Your task to perform on an android device: open the mobile data screen to see how much data has been used Image 0: 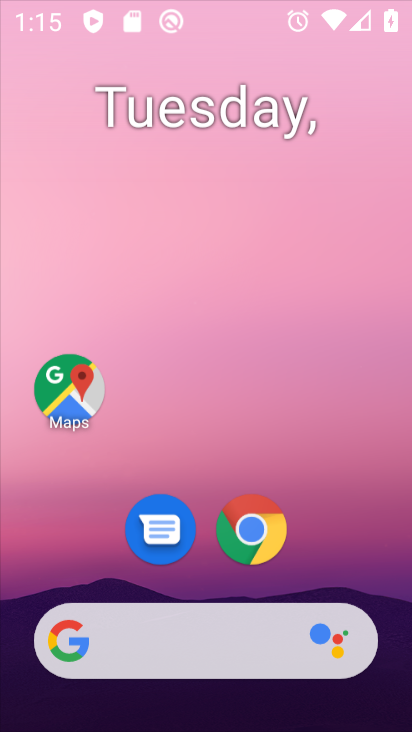
Step 0: drag from (387, 624) to (210, 60)
Your task to perform on an android device: open the mobile data screen to see how much data has been used Image 1: 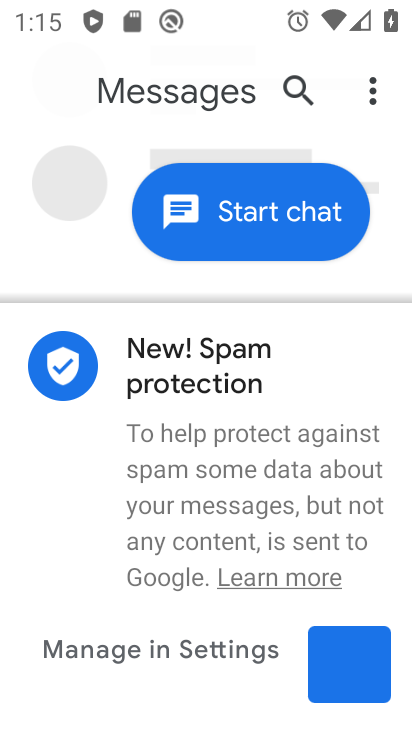
Step 1: press home button
Your task to perform on an android device: open the mobile data screen to see how much data has been used Image 2: 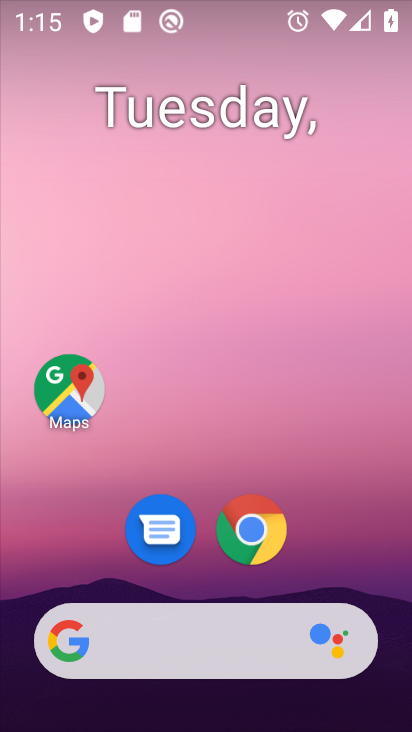
Step 2: drag from (387, 627) to (331, 151)
Your task to perform on an android device: open the mobile data screen to see how much data has been used Image 3: 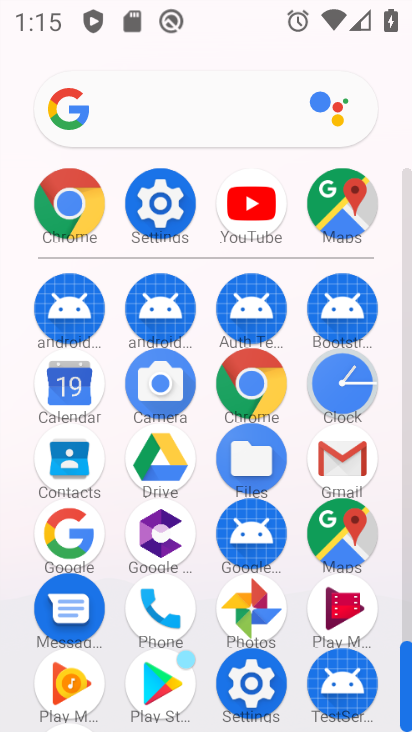
Step 3: click (153, 197)
Your task to perform on an android device: open the mobile data screen to see how much data has been used Image 4: 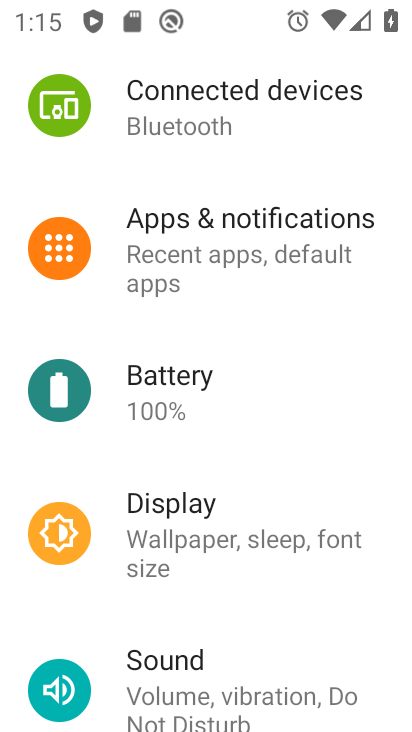
Step 4: drag from (233, 214) to (210, 439)
Your task to perform on an android device: open the mobile data screen to see how much data has been used Image 5: 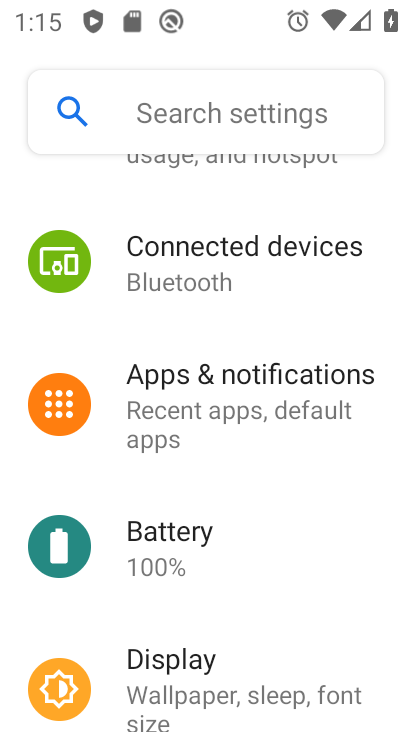
Step 5: drag from (270, 187) to (295, 407)
Your task to perform on an android device: open the mobile data screen to see how much data has been used Image 6: 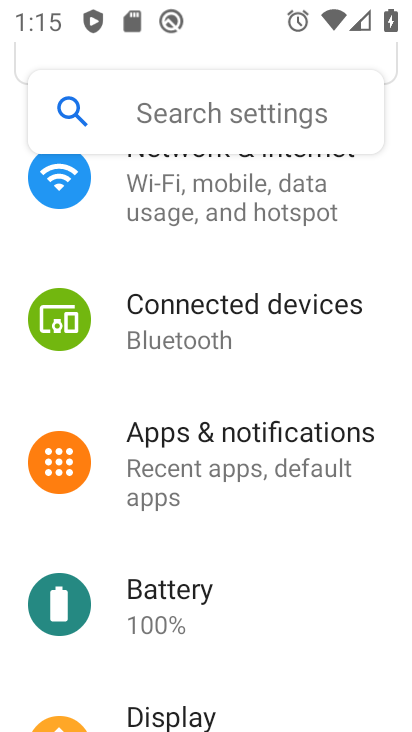
Step 6: click (246, 243)
Your task to perform on an android device: open the mobile data screen to see how much data has been used Image 7: 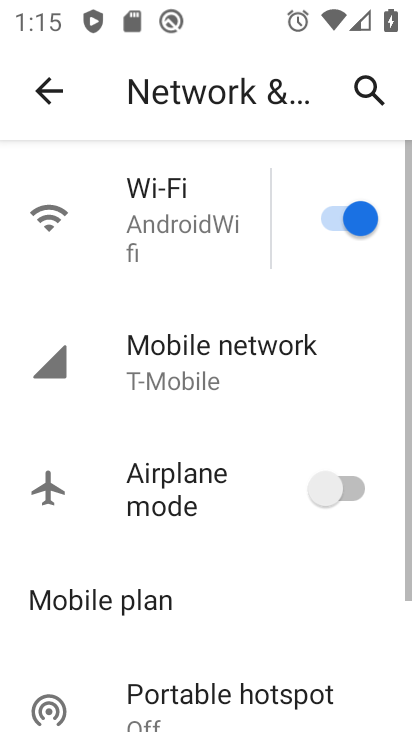
Step 7: click (228, 363)
Your task to perform on an android device: open the mobile data screen to see how much data has been used Image 8: 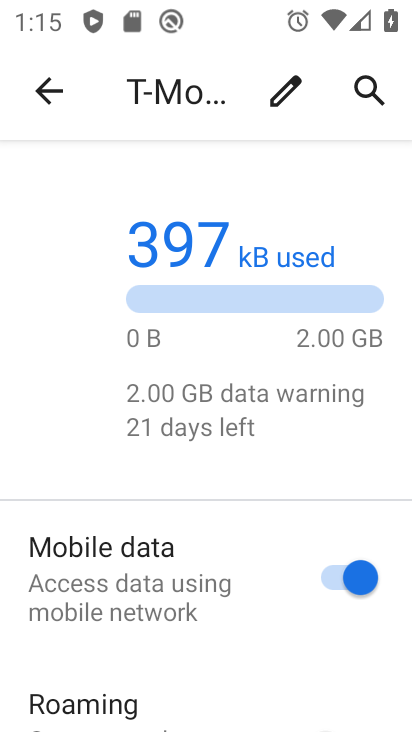
Step 8: drag from (184, 661) to (206, 447)
Your task to perform on an android device: open the mobile data screen to see how much data has been used Image 9: 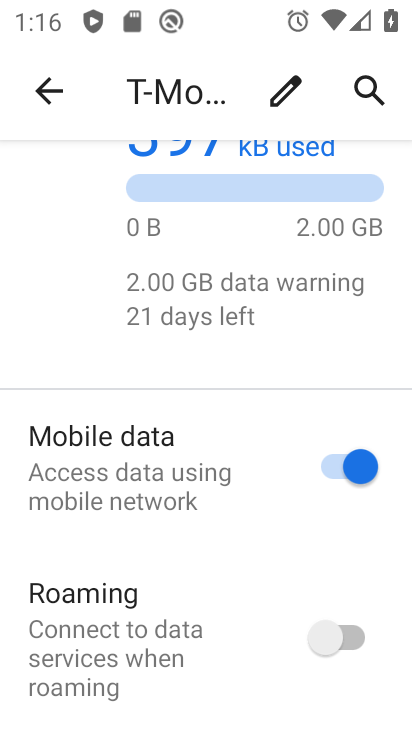
Step 9: drag from (148, 625) to (184, 299)
Your task to perform on an android device: open the mobile data screen to see how much data has been used Image 10: 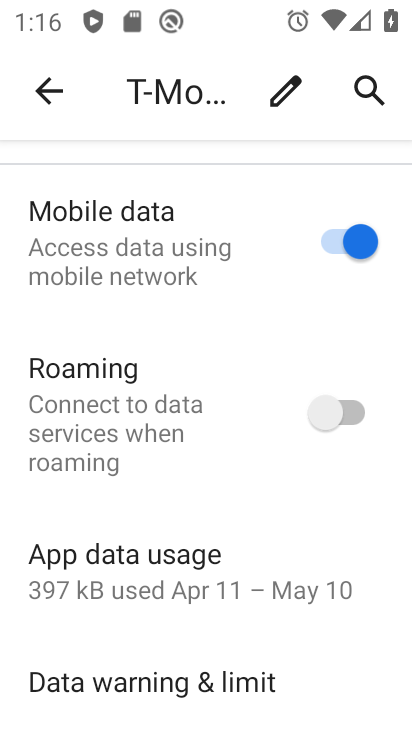
Step 10: click (160, 587)
Your task to perform on an android device: open the mobile data screen to see how much data has been used Image 11: 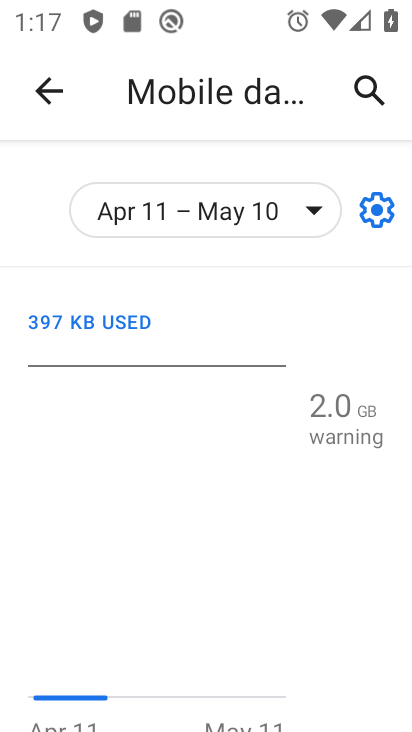
Step 11: task complete